Your task to perform on an android device: open app "Flipkart Online Shopping App" (install if not already installed) and enter user name: "fostered@gmail.com" and password: "negotiated" Image 0: 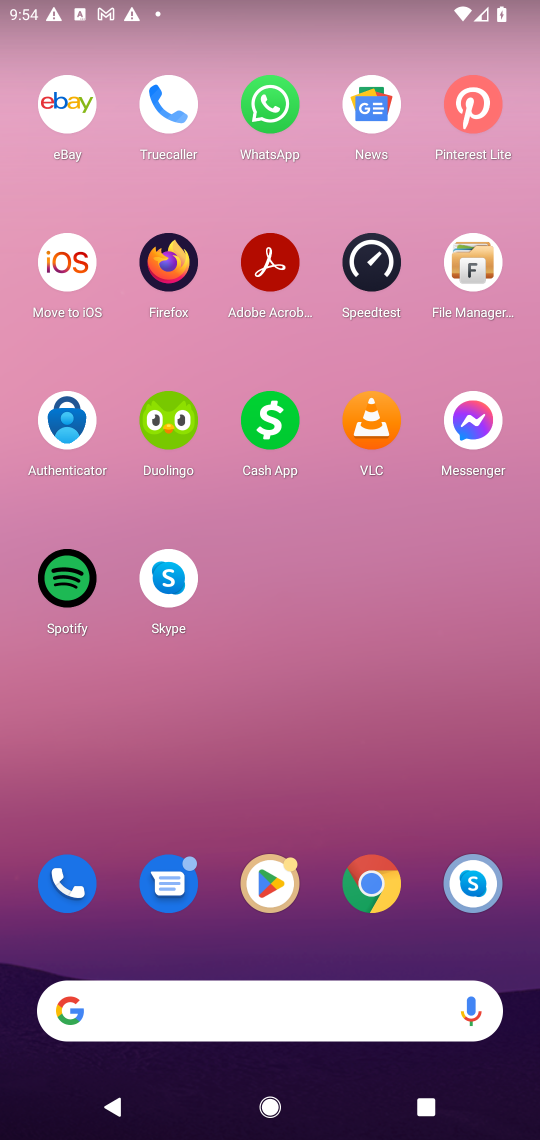
Step 0: click (256, 870)
Your task to perform on an android device: open app "Flipkart Online Shopping App" (install if not already installed) and enter user name: "fostered@gmail.com" and password: "negotiated" Image 1: 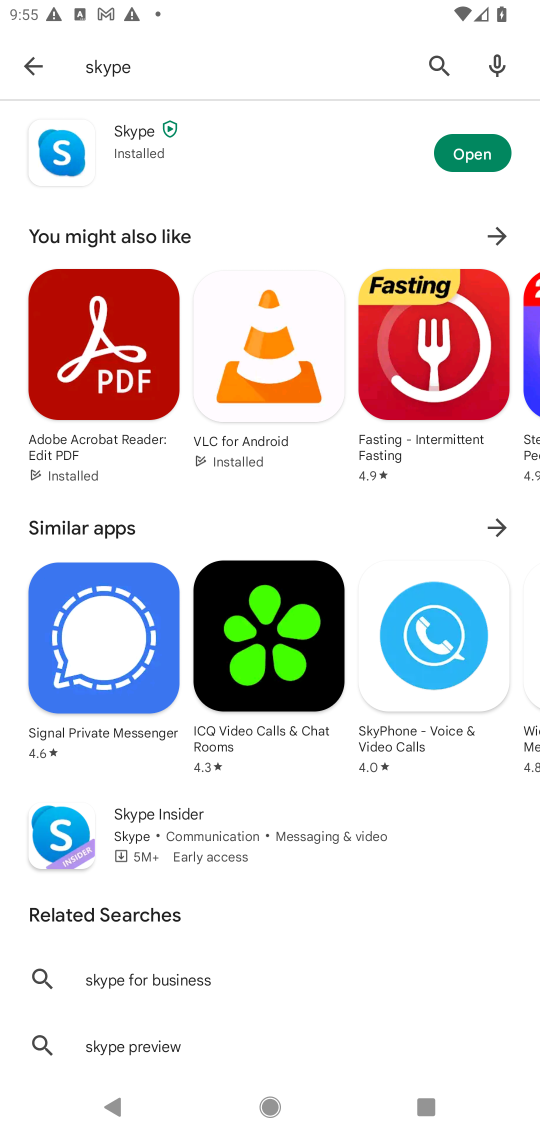
Step 1: click (428, 57)
Your task to perform on an android device: open app "Flipkart Online Shopping App" (install if not already installed) and enter user name: "fostered@gmail.com" and password: "negotiated" Image 2: 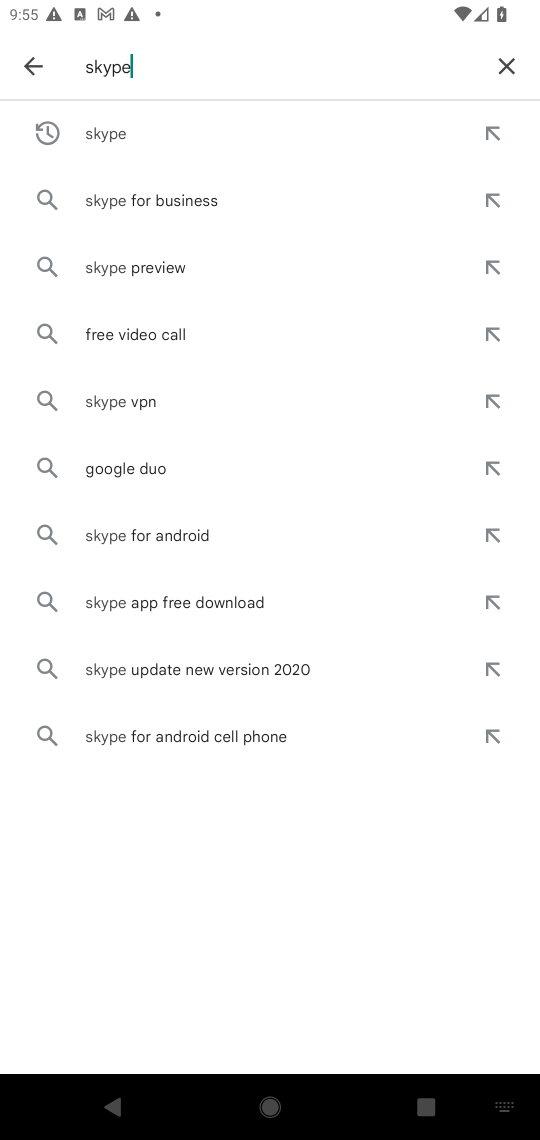
Step 2: click (501, 69)
Your task to perform on an android device: open app "Flipkart Online Shopping App" (install if not already installed) and enter user name: "fostered@gmail.com" and password: "negotiated" Image 3: 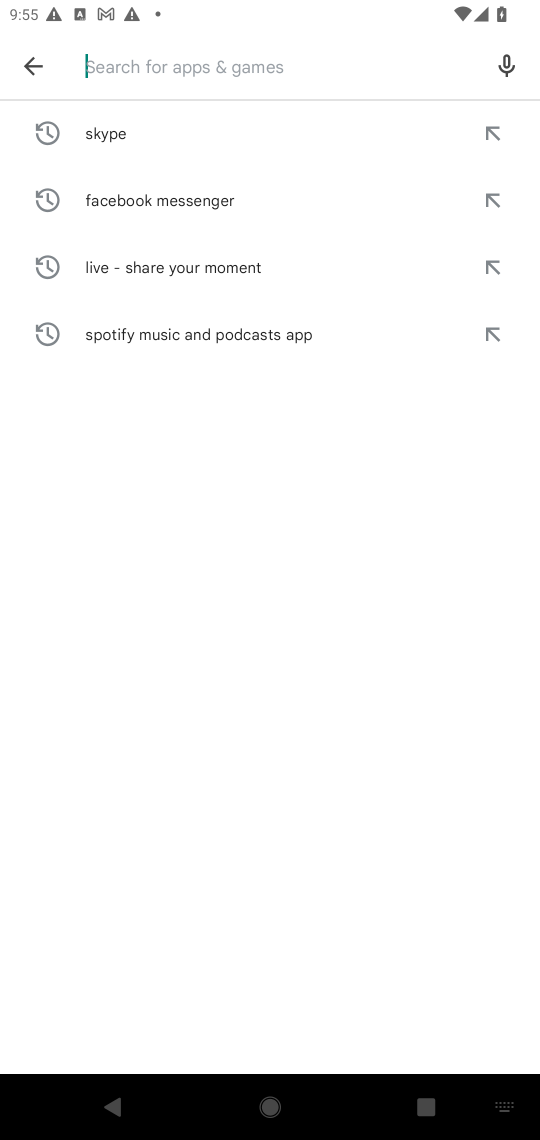
Step 3: type "Flipkart Online Shopping App"
Your task to perform on an android device: open app "Flipkart Online Shopping App" (install if not already installed) and enter user name: "fostered@gmail.com" and password: "negotiated" Image 4: 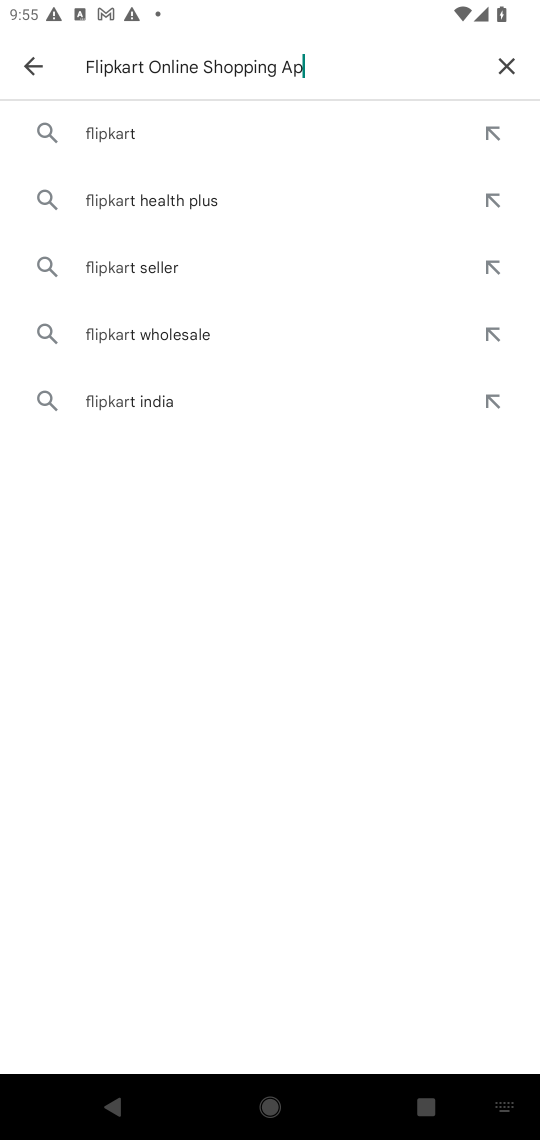
Step 4: type ""
Your task to perform on an android device: open app "Flipkart Online Shopping App" (install if not already installed) and enter user name: "fostered@gmail.com" and password: "negotiated" Image 5: 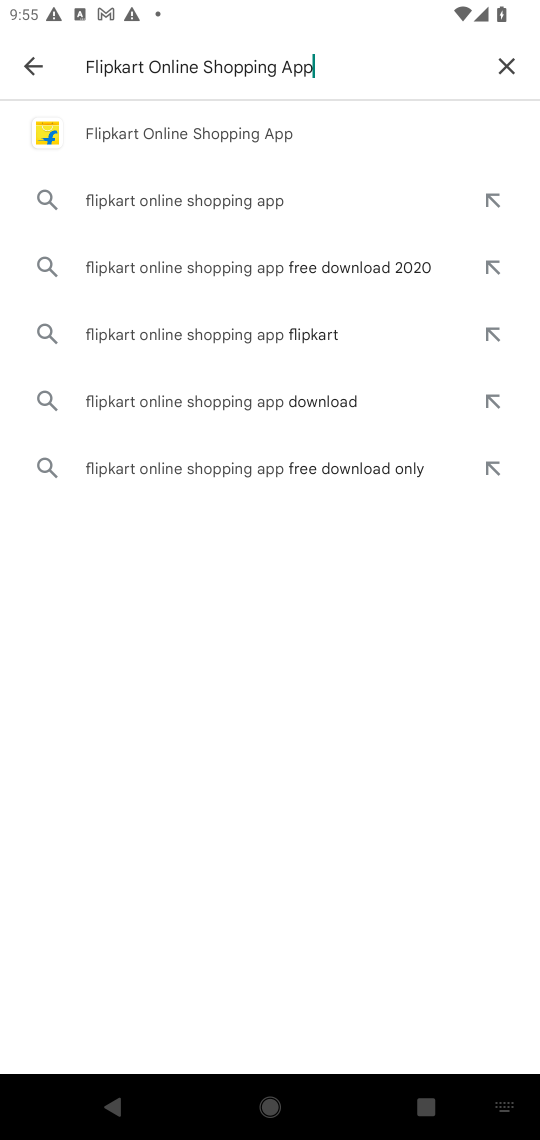
Step 5: click (289, 141)
Your task to perform on an android device: open app "Flipkart Online Shopping App" (install if not already installed) and enter user name: "fostered@gmail.com" and password: "negotiated" Image 6: 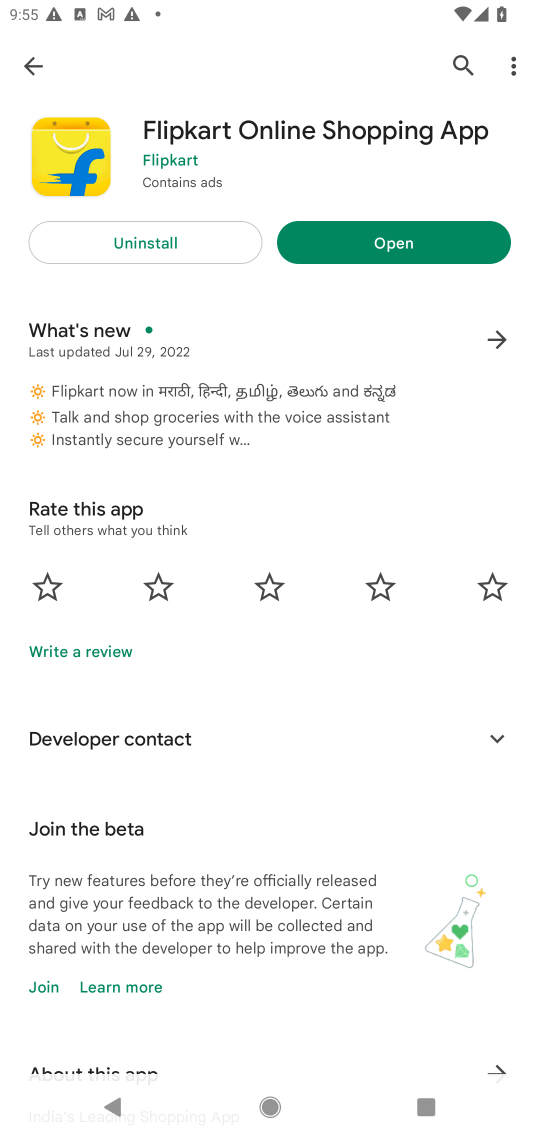
Step 6: click (344, 222)
Your task to perform on an android device: open app "Flipkart Online Shopping App" (install if not already installed) and enter user name: "fostered@gmail.com" and password: "negotiated" Image 7: 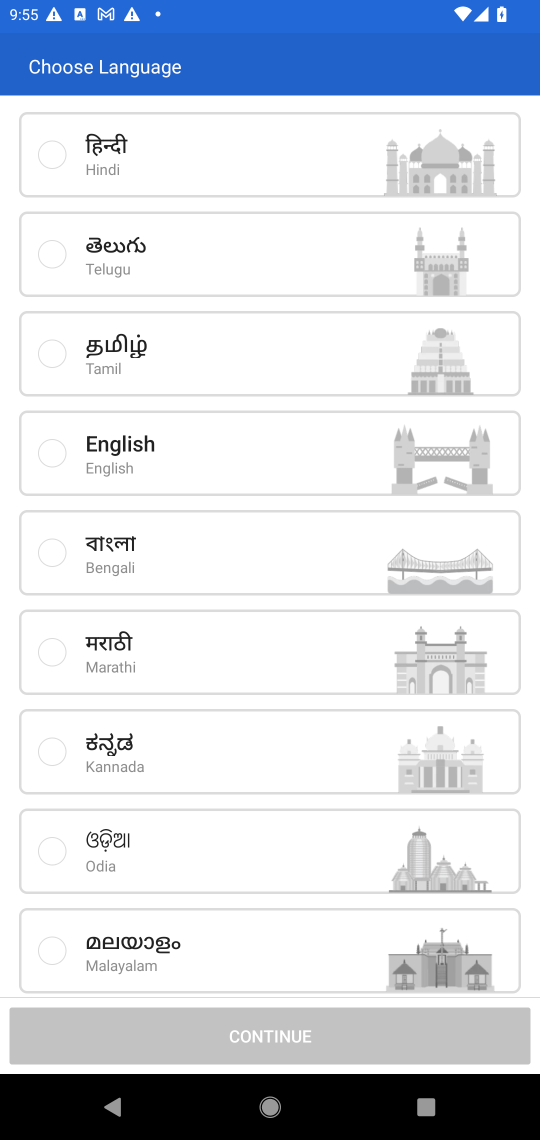
Step 7: task complete